Your task to perform on an android device: read, delete, or share a saved page in the chrome app Image 0: 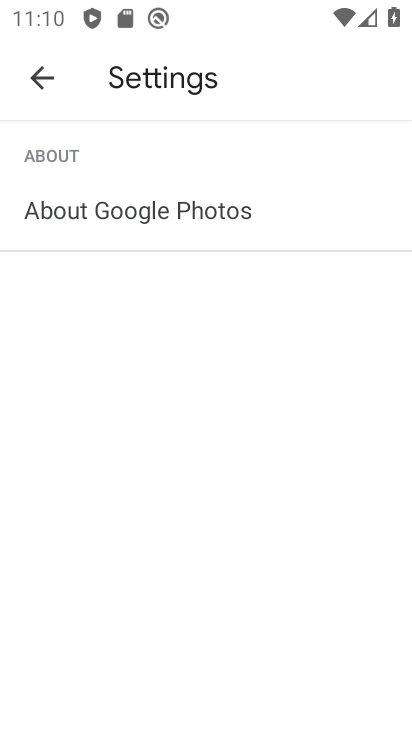
Step 0: press back button
Your task to perform on an android device: read, delete, or share a saved page in the chrome app Image 1: 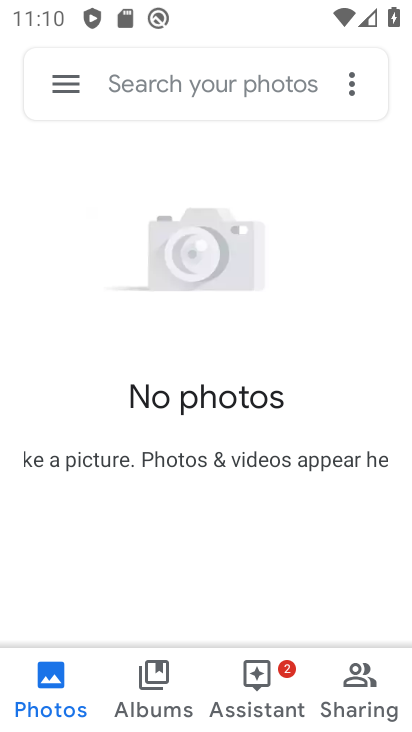
Step 1: press back button
Your task to perform on an android device: read, delete, or share a saved page in the chrome app Image 2: 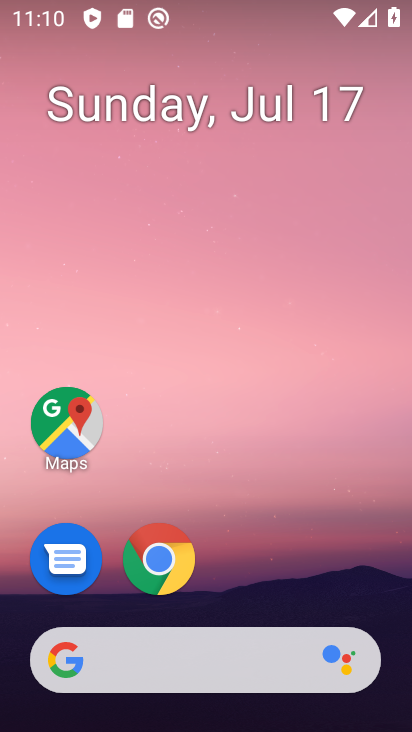
Step 2: click (170, 555)
Your task to perform on an android device: read, delete, or share a saved page in the chrome app Image 3: 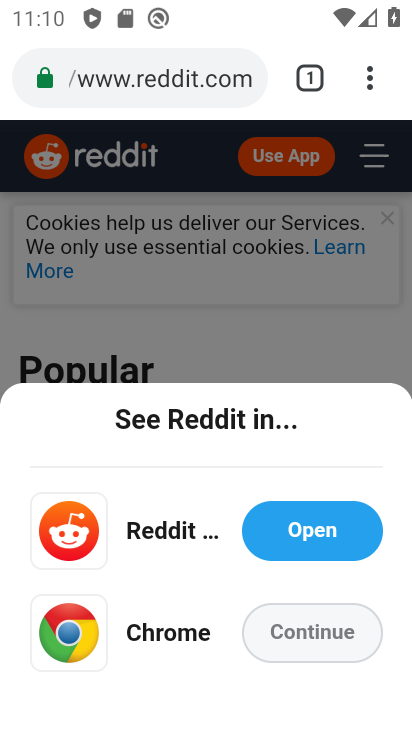
Step 3: drag from (375, 62) to (80, 516)
Your task to perform on an android device: read, delete, or share a saved page in the chrome app Image 4: 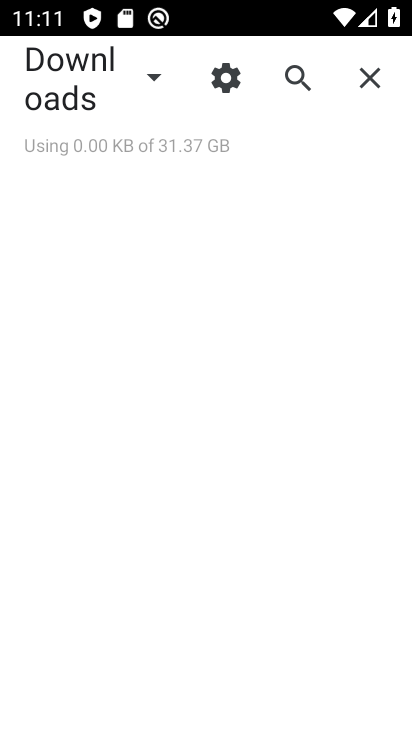
Step 4: click (134, 79)
Your task to perform on an android device: read, delete, or share a saved page in the chrome app Image 5: 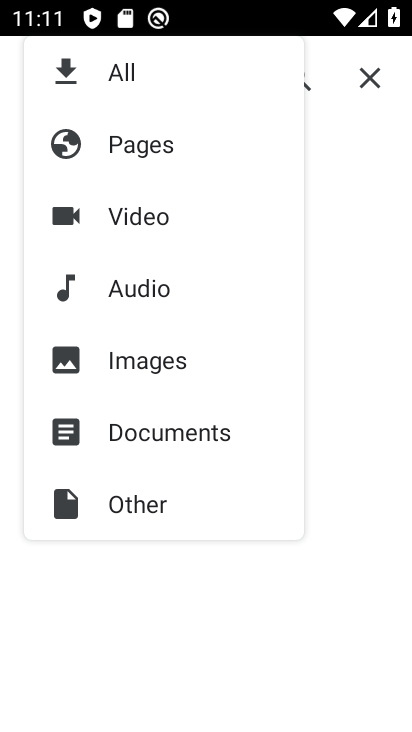
Step 5: click (117, 162)
Your task to perform on an android device: read, delete, or share a saved page in the chrome app Image 6: 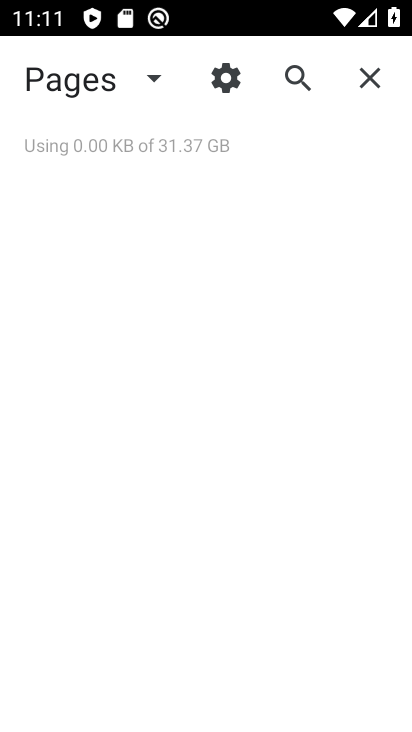
Step 6: task complete